Your task to perform on an android device: open app "Google Docs" (install if not already installed) Image 0: 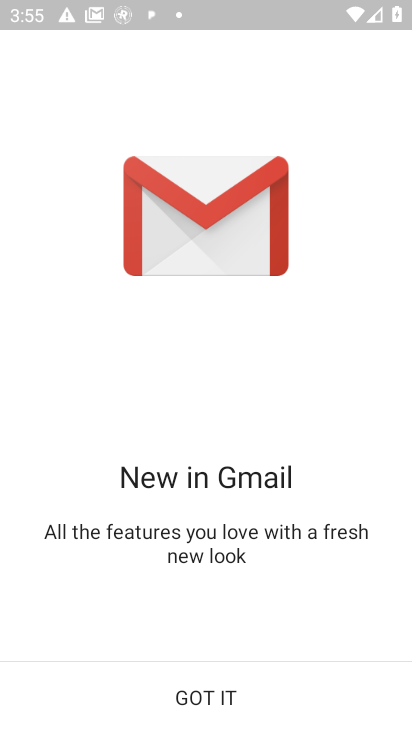
Step 0: press home button
Your task to perform on an android device: open app "Google Docs" (install if not already installed) Image 1: 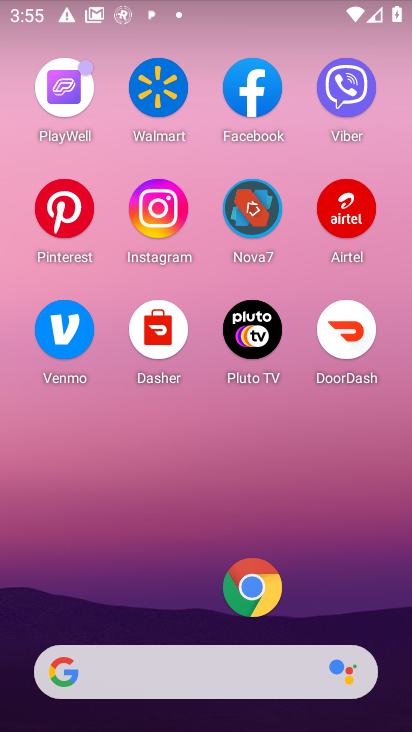
Step 1: drag from (183, 616) to (164, 51)
Your task to perform on an android device: open app "Google Docs" (install if not already installed) Image 2: 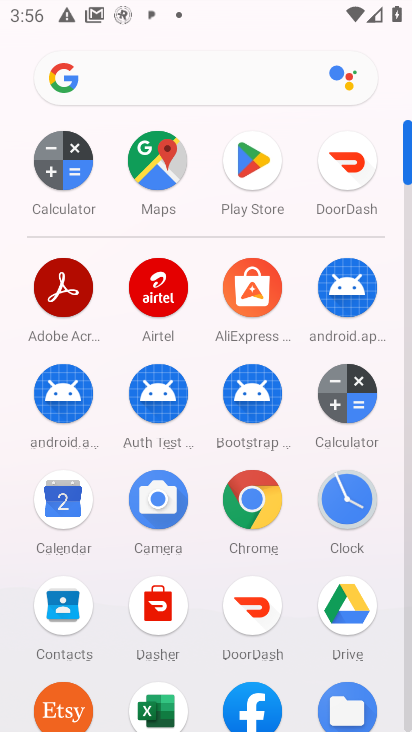
Step 2: click (244, 149)
Your task to perform on an android device: open app "Google Docs" (install if not already installed) Image 3: 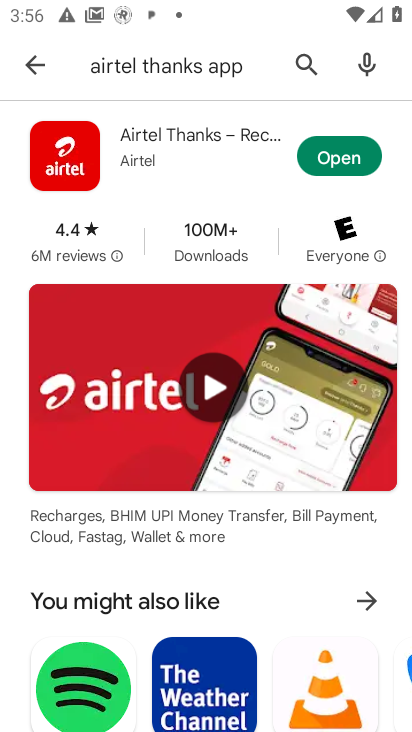
Step 3: click (302, 77)
Your task to perform on an android device: open app "Google Docs" (install if not already installed) Image 4: 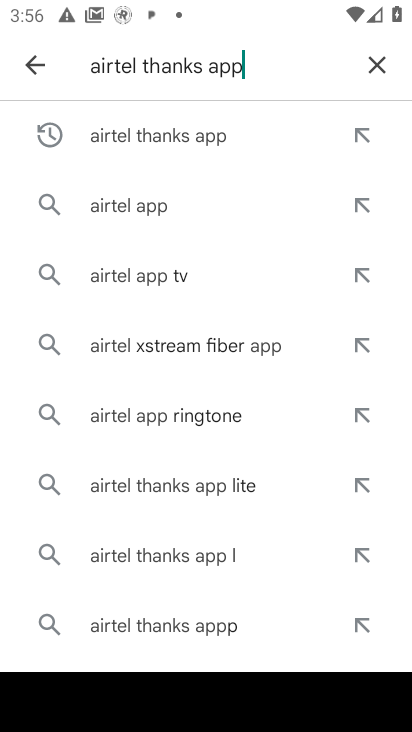
Step 4: click (376, 67)
Your task to perform on an android device: open app "Google Docs" (install if not already installed) Image 5: 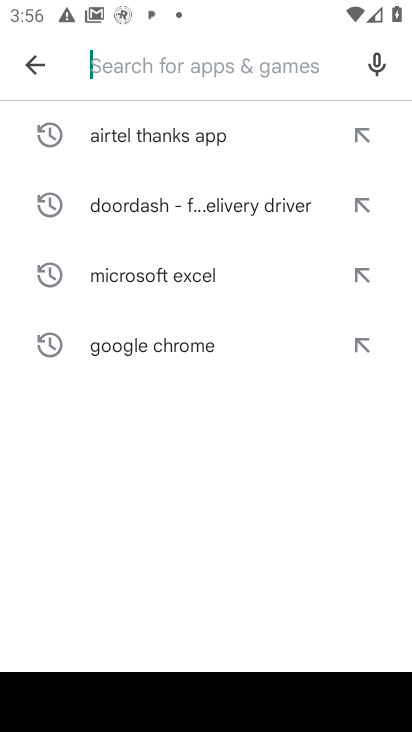
Step 5: type "Google Docs"
Your task to perform on an android device: open app "Google Docs" (install if not already installed) Image 6: 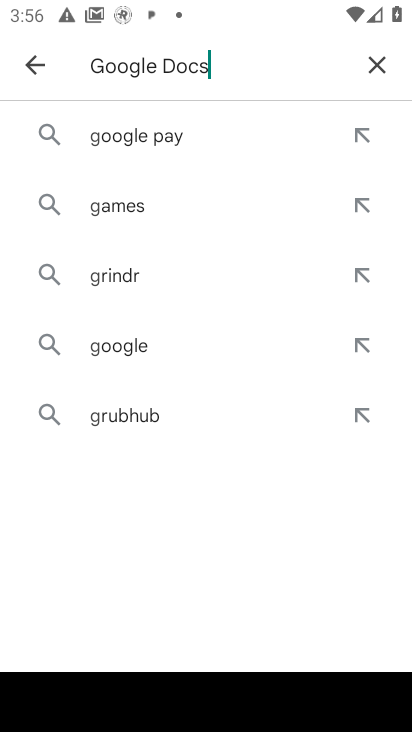
Step 6: type ""
Your task to perform on an android device: open app "Google Docs" (install if not already installed) Image 7: 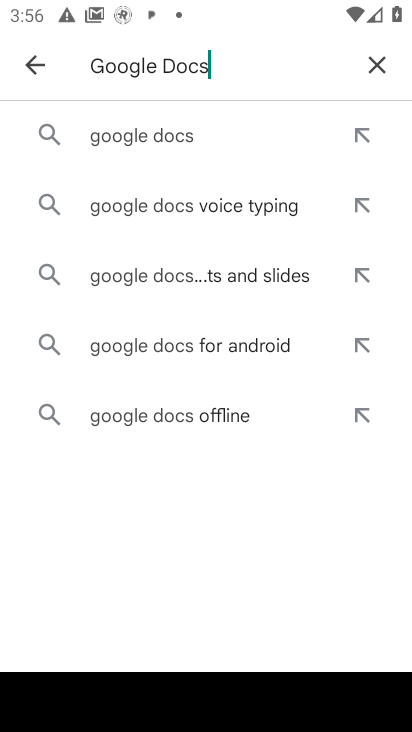
Step 7: click (154, 136)
Your task to perform on an android device: open app "Google Docs" (install if not already installed) Image 8: 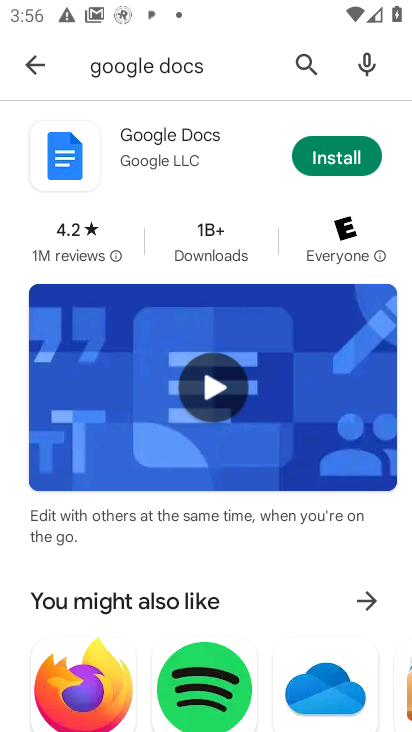
Step 8: click (364, 162)
Your task to perform on an android device: open app "Google Docs" (install if not already installed) Image 9: 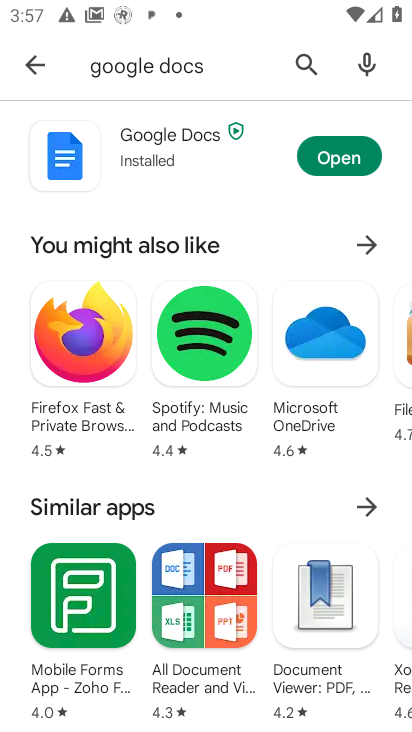
Step 9: click (364, 162)
Your task to perform on an android device: open app "Google Docs" (install if not already installed) Image 10: 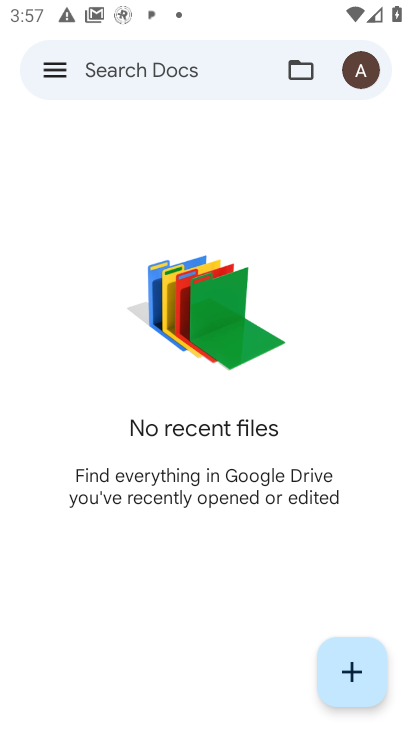
Step 10: task complete